Your task to perform on an android device: turn notification dots off Image 0: 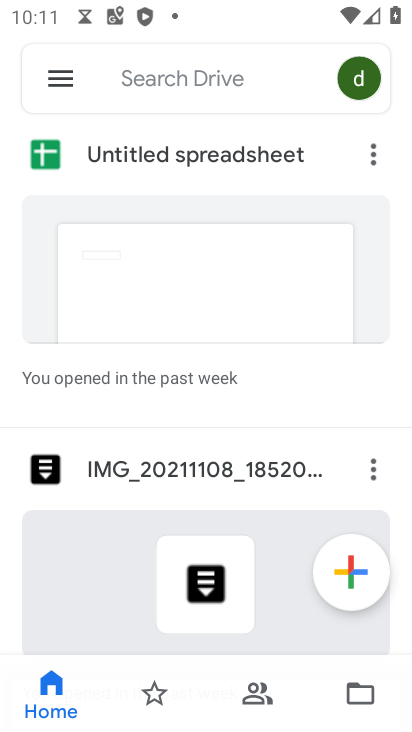
Step 0: press home button
Your task to perform on an android device: turn notification dots off Image 1: 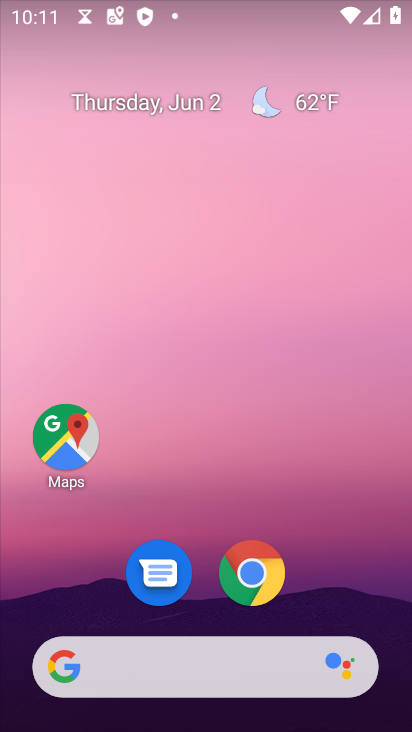
Step 1: drag from (340, 542) to (277, 63)
Your task to perform on an android device: turn notification dots off Image 2: 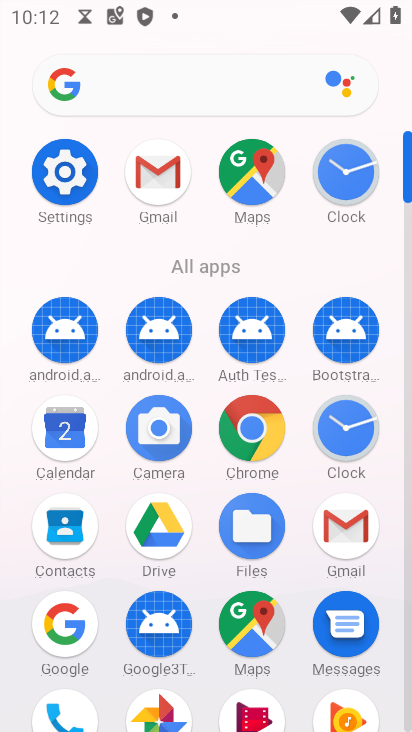
Step 2: click (65, 170)
Your task to perform on an android device: turn notification dots off Image 3: 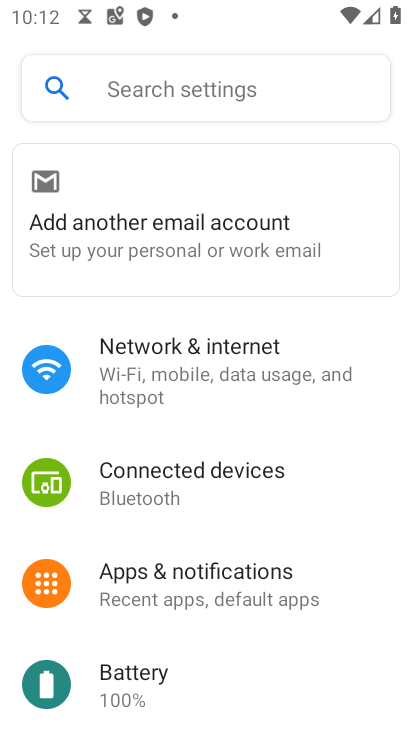
Step 3: click (178, 569)
Your task to perform on an android device: turn notification dots off Image 4: 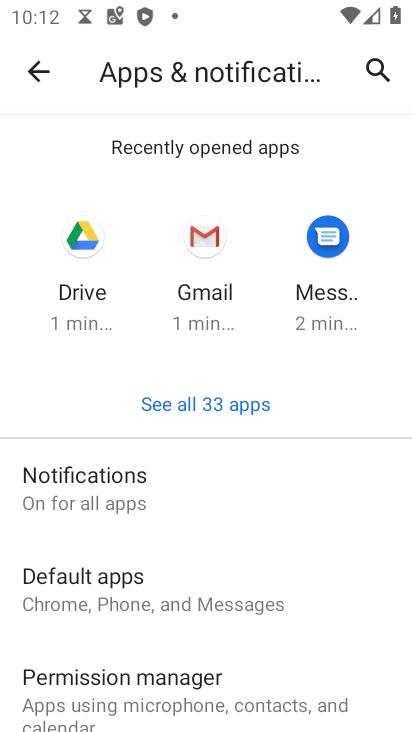
Step 4: click (60, 474)
Your task to perform on an android device: turn notification dots off Image 5: 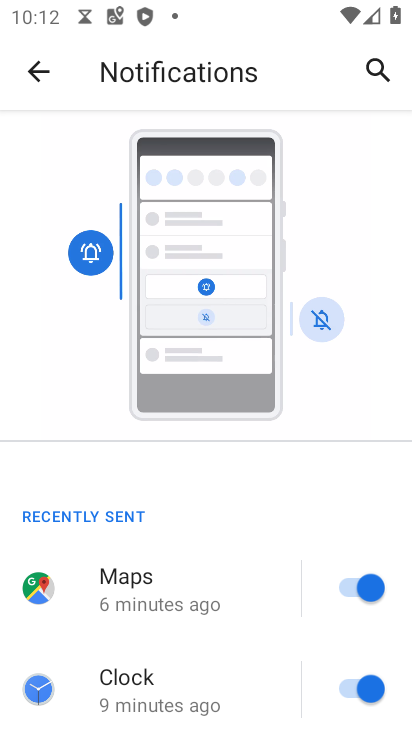
Step 5: drag from (220, 551) to (264, 321)
Your task to perform on an android device: turn notification dots off Image 6: 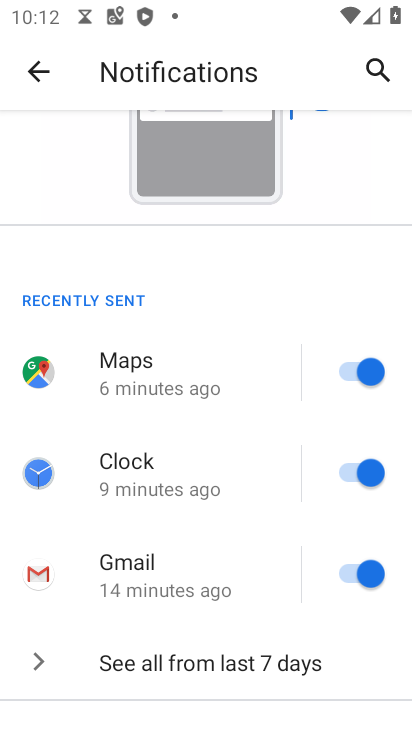
Step 6: drag from (179, 533) to (210, 403)
Your task to perform on an android device: turn notification dots off Image 7: 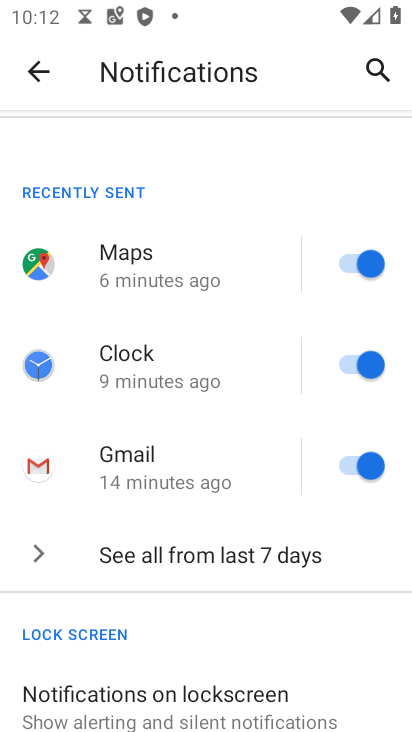
Step 7: drag from (185, 606) to (224, 481)
Your task to perform on an android device: turn notification dots off Image 8: 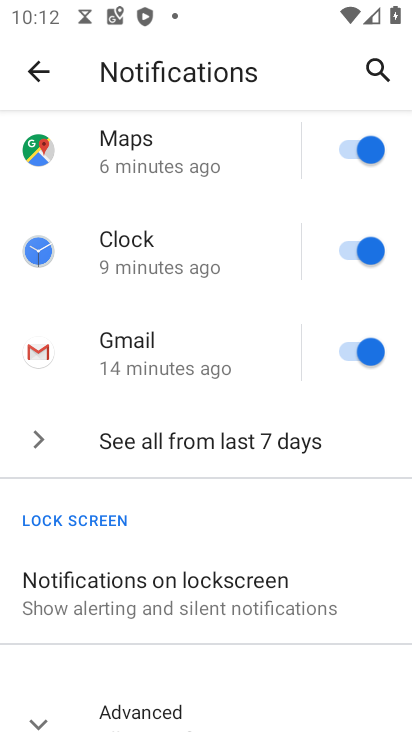
Step 8: drag from (192, 680) to (262, 501)
Your task to perform on an android device: turn notification dots off Image 9: 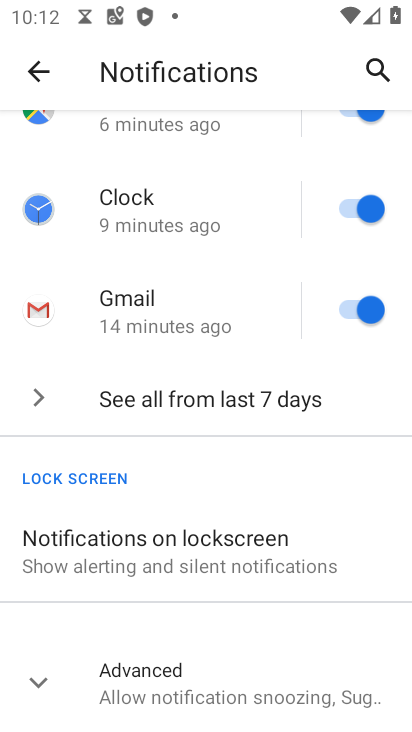
Step 9: click (211, 699)
Your task to perform on an android device: turn notification dots off Image 10: 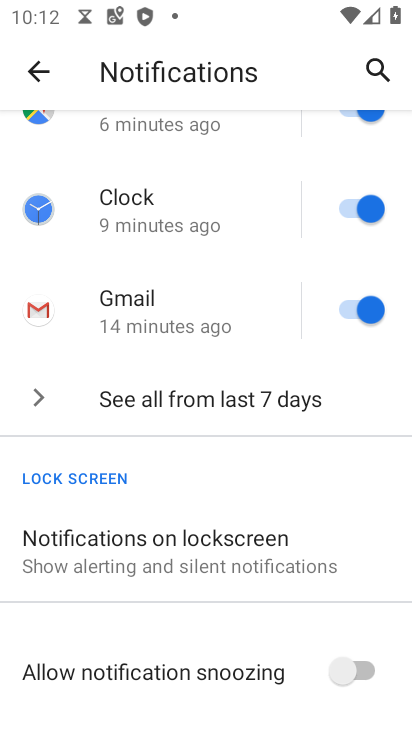
Step 10: drag from (165, 623) to (258, 446)
Your task to perform on an android device: turn notification dots off Image 11: 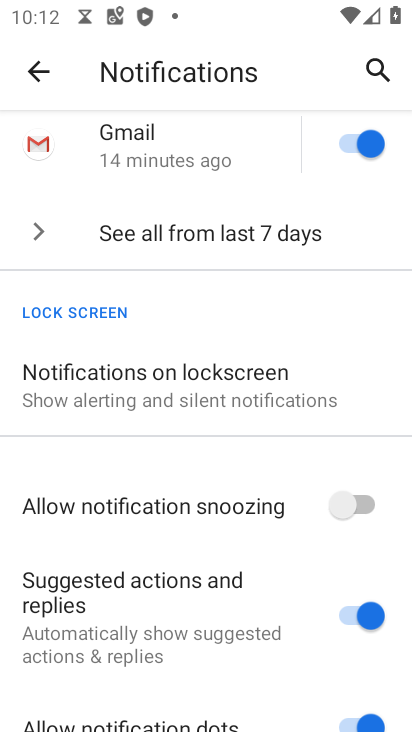
Step 11: drag from (203, 671) to (310, 374)
Your task to perform on an android device: turn notification dots off Image 12: 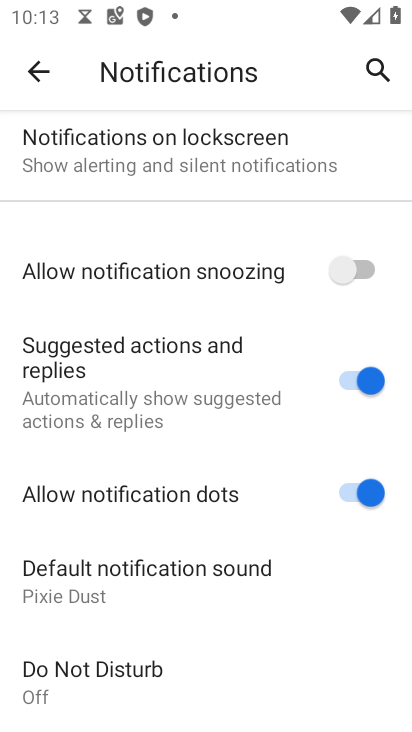
Step 12: click (355, 510)
Your task to perform on an android device: turn notification dots off Image 13: 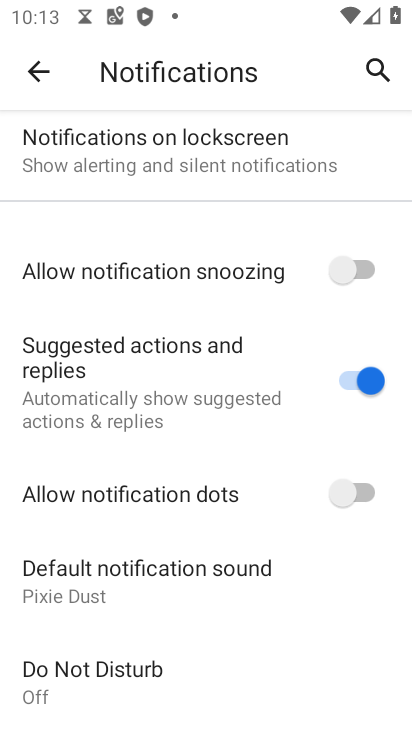
Step 13: task complete